Your task to perform on an android device: turn on notifications settings in the gmail app Image 0: 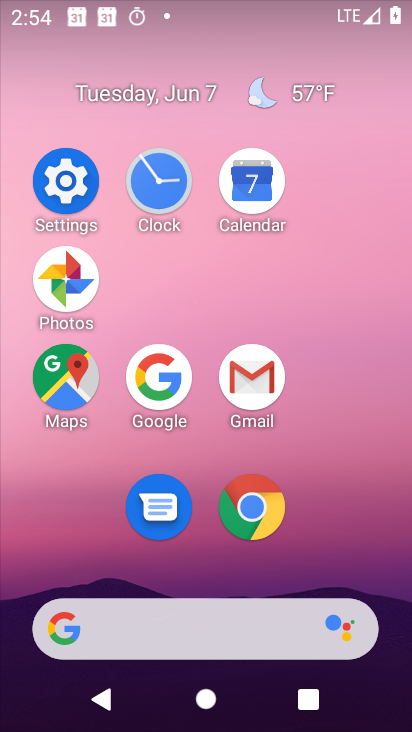
Step 0: click (271, 394)
Your task to perform on an android device: turn on notifications settings in the gmail app Image 1: 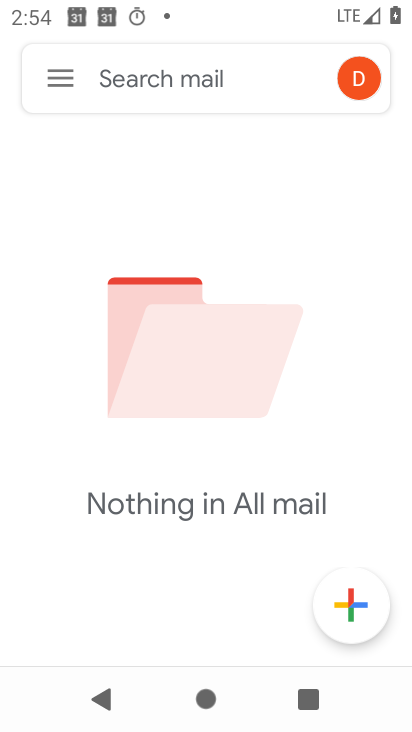
Step 1: click (44, 89)
Your task to perform on an android device: turn on notifications settings in the gmail app Image 2: 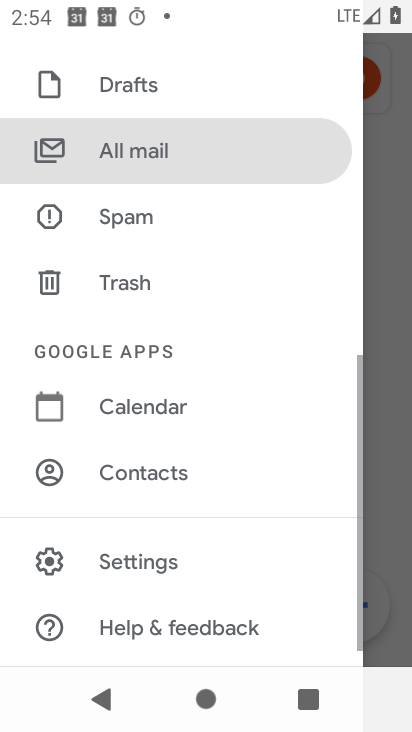
Step 2: click (148, 563)
Your task to perform on an android device: turn on notifications settings in the gmail app Image 3: 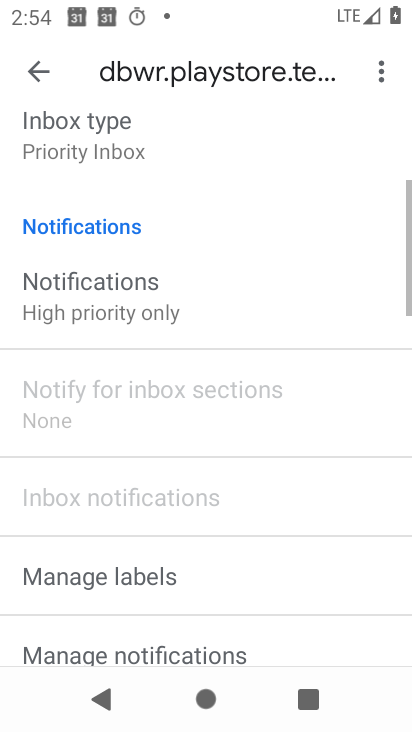
Step 3: click (175, 299)
Your task to perform on an android device: turn on notifications settings in the gmail app Image 4: 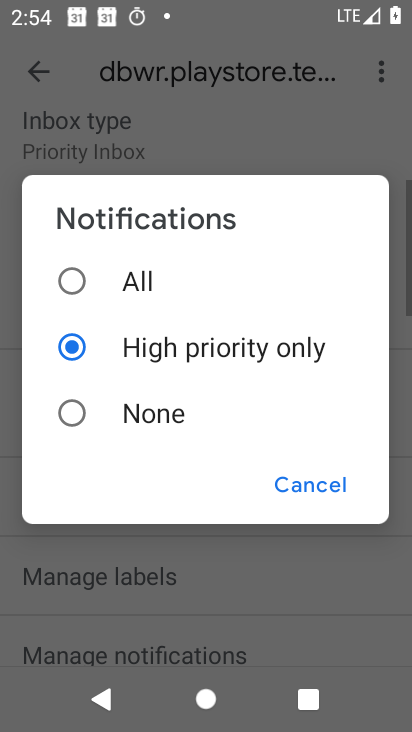
Step 4: click (155, 284)
Your task to perform on an android device: turn on notifications settings in the gmail app Image 5: 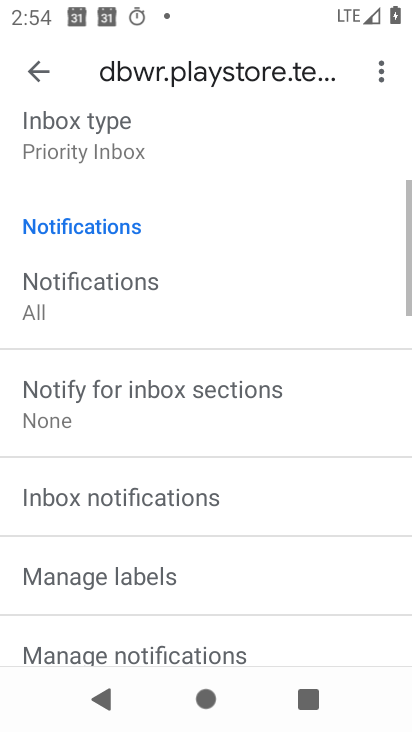
Step 5: task complete